Your task to perform on an android device: turn off priority inbox in the gmail app Image 0: 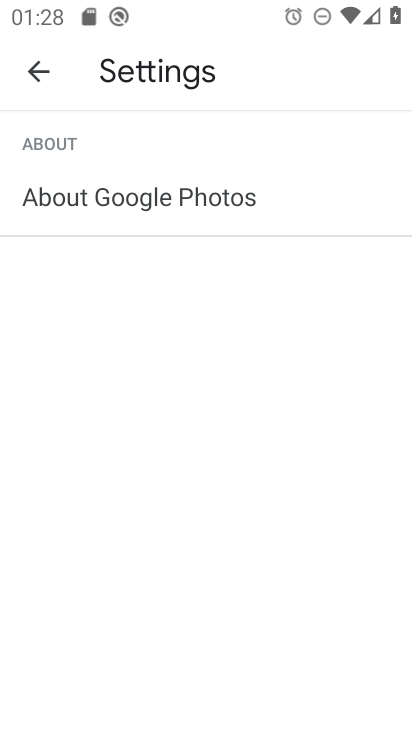
Step 0: click (45, 76)
Your task to perform on an android device: turn off priority inbox in the gmail app Image 1: 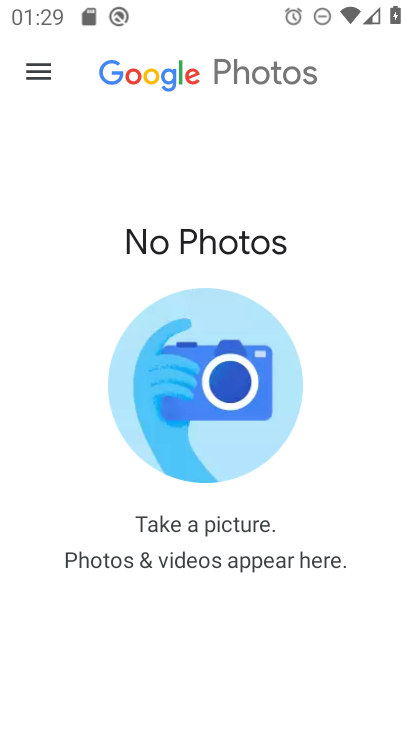
Step 1: press home button
Your task to perform on an android device: turn off priority inbox in the gmail app Image 2: 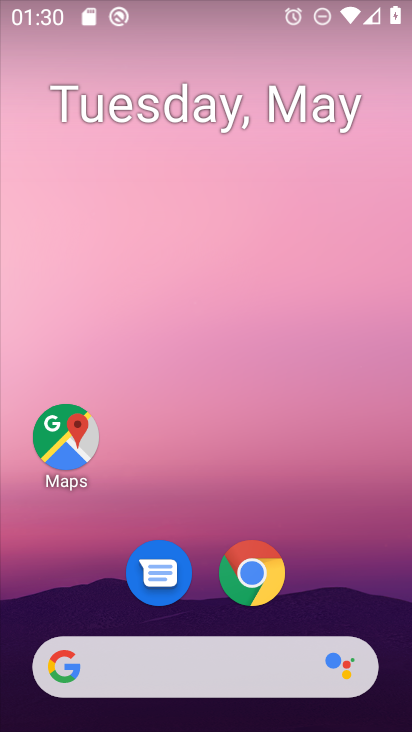
Step 2: drag from (218, 717) to (217, 28)
Your task to perform on an android device: turn off priority inbox in the gmail app Image 3: 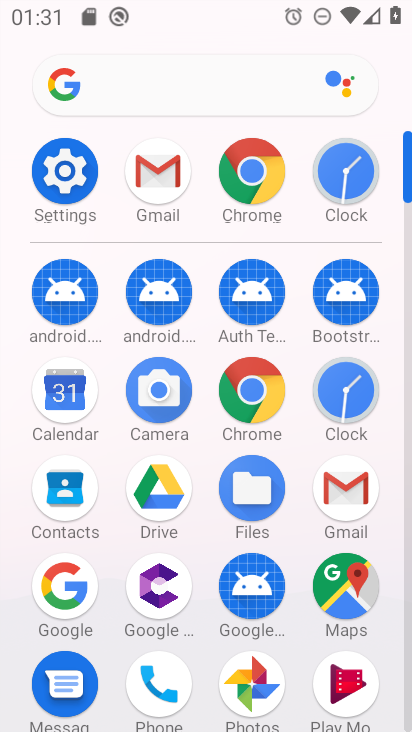
Step 3: click (174, 179)
Your task to perform on an android device: turn off priority inbox in the gmail app Image 4: 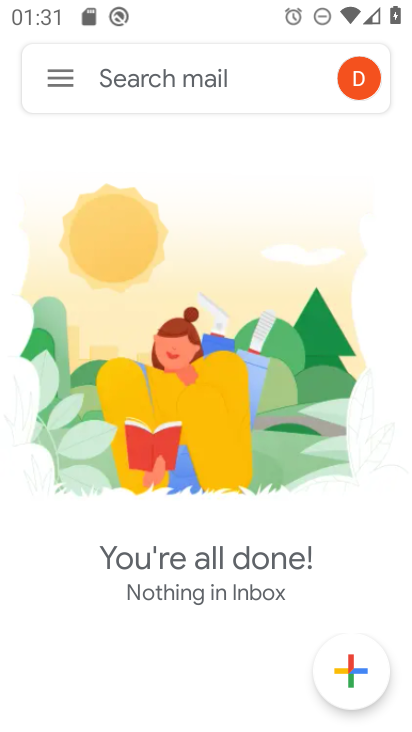
Step 4: click (55, 75)
Your task to perform on an android device: turn off priority inbox in the gmail app Image 5: 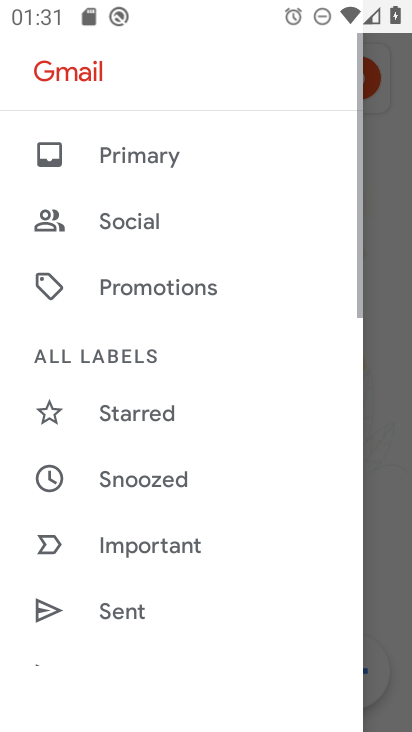
Step 5: drag from (150, 475) to (201, 15)
Your task to perform on an android device: turn off priority inbox in the gmail app Image 6: 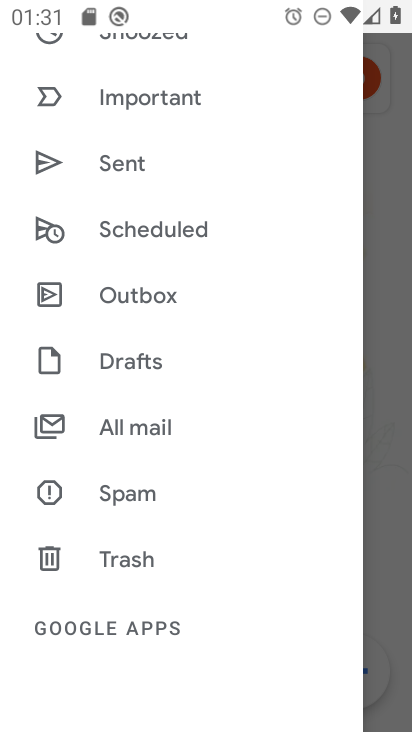
Step 6: drag from (155, 631) to (255, 3)
Your task to perform on an android device: turn off priority inbox in the gmail app Image 7: 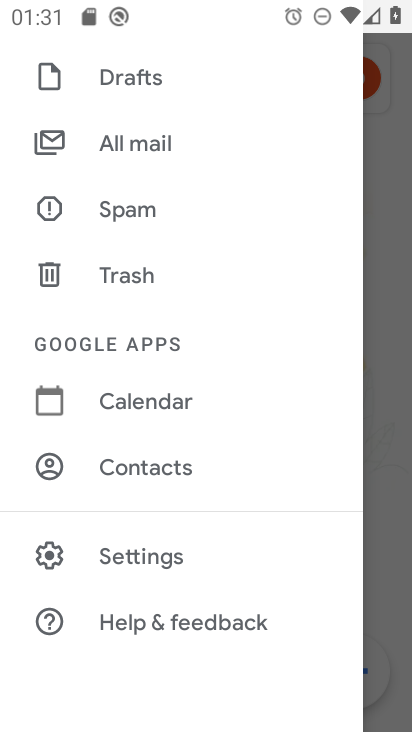
Step 7: click (177, 556)
Your task to perform on an android device: turn off priority inbox in the gmail app Image 8: 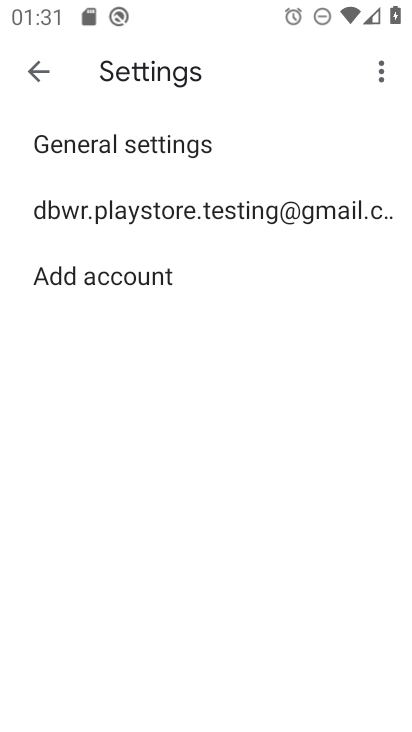
Step 8: click (180, 215)
Your task to perform on an android device: turn off priority inbox in the gmail app Image 9: 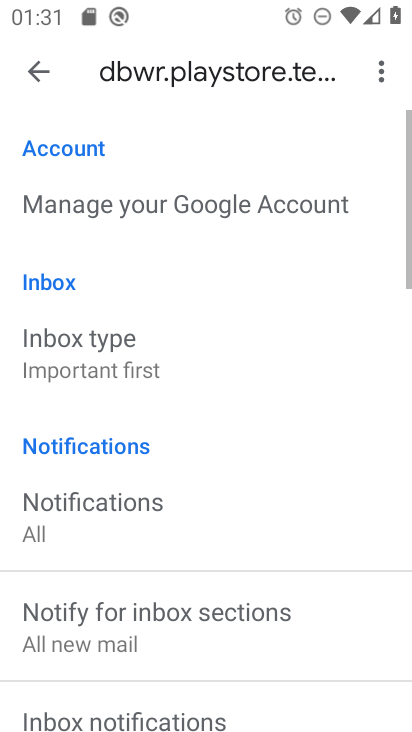
Step 9: click (78, 368)
Your task to perform on an android device: turn off priority inbox in the gmail app Image 10: 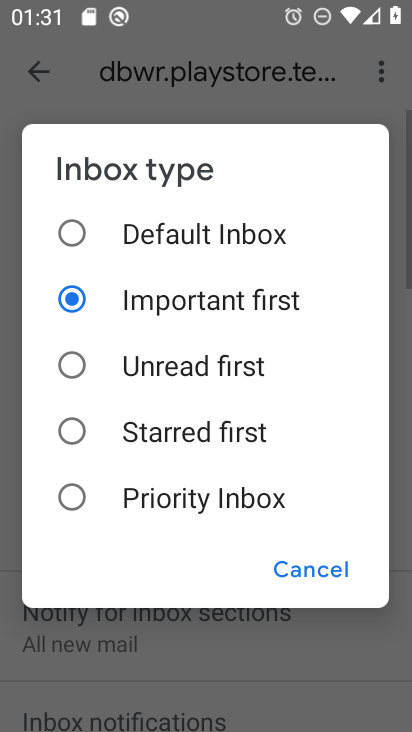
Step 10: task complete